Your task to perform on an android device: open a bookmark in the chrome app Image 0: 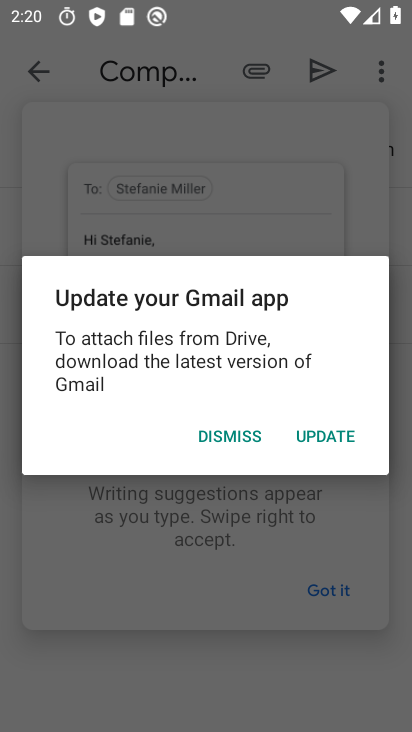
Step 0: press home button
Your task to perform on an android device: open a bookmark in the chrome app Image 1: 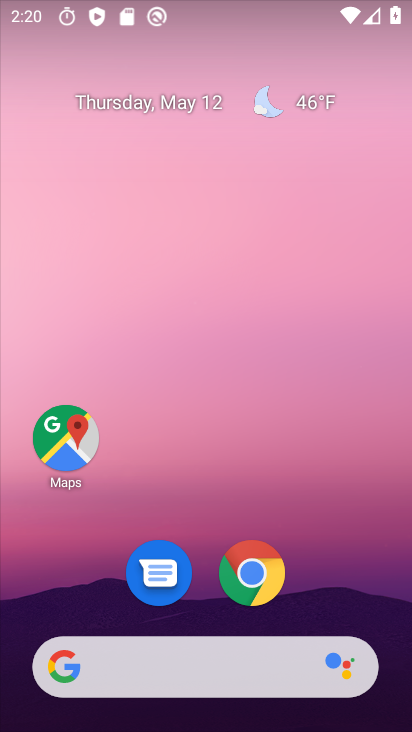
Step 1: click (254, 564)
Your task to perform on an android device: open a bookmark in the chrome app Image 2: 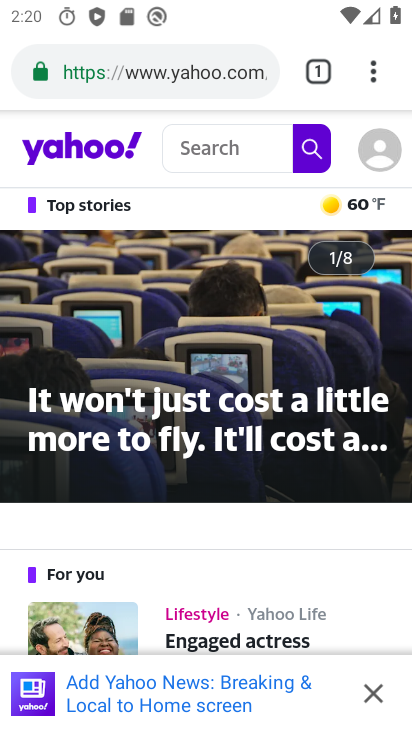
Step 2: click (389, 62)
Your task to perform on an android device: open a bookmark in the chrome app Image 3: 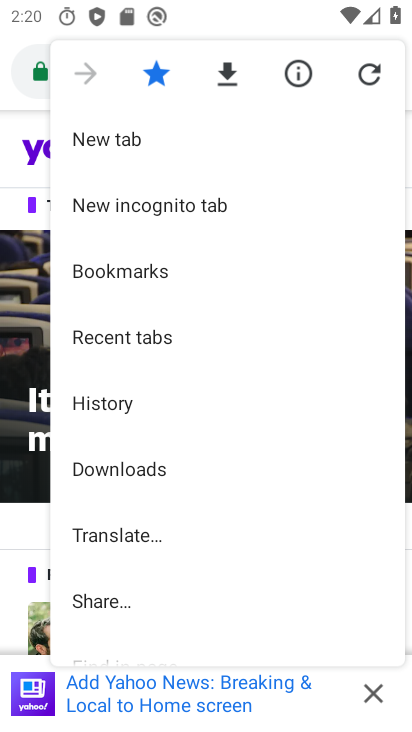
Step 3: click (158, 277)
Your task to perform on an android device: open a bookmark in the chrome app Image 4: 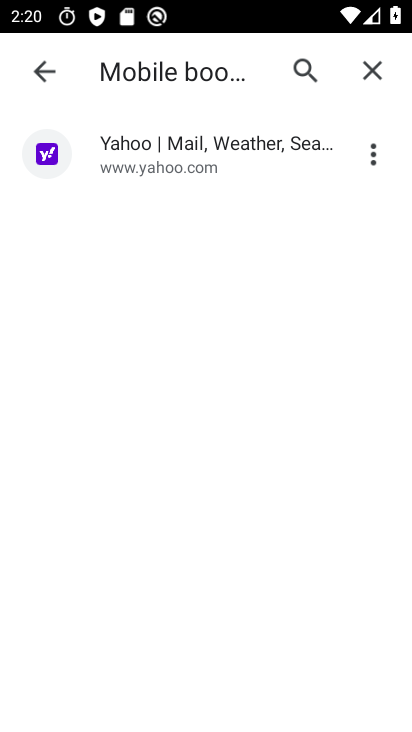
Step 4: click (224, 133)
Your task to perform on an android device: open a bookmark in the chrome app Image 5: 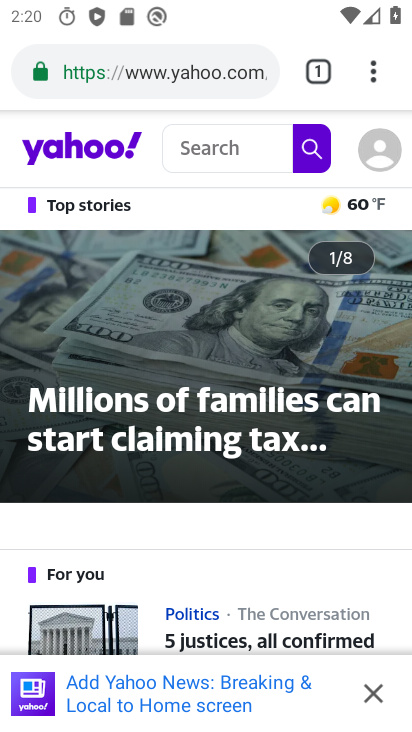
Step 5: click (383, 73)
Your task to perform on an android device: open a bookmark in the chrome app Image 6: 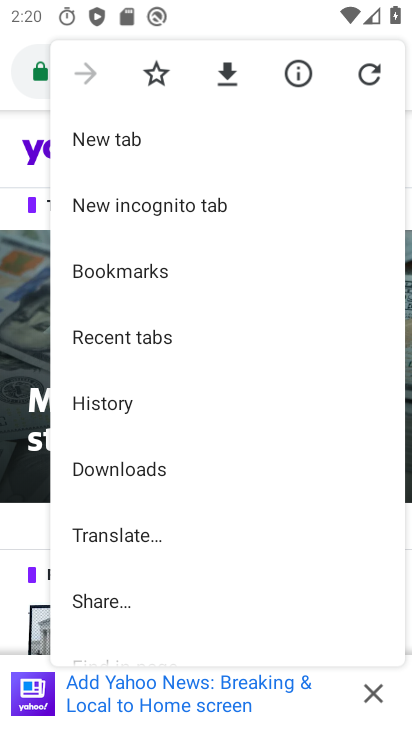
Step 6: click (58, 295)
Your task to perform on an android device: open a bookmark in the chrome app Image 7: 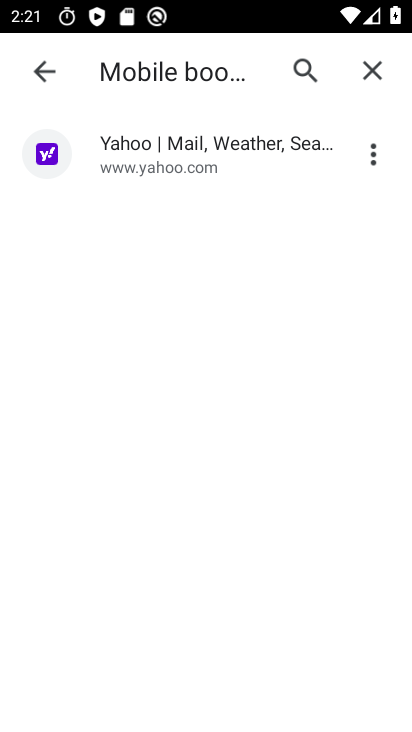
Step 7: task complete